Your task to perform on an android device: Set the phone to "Do not disturb". Image 0: 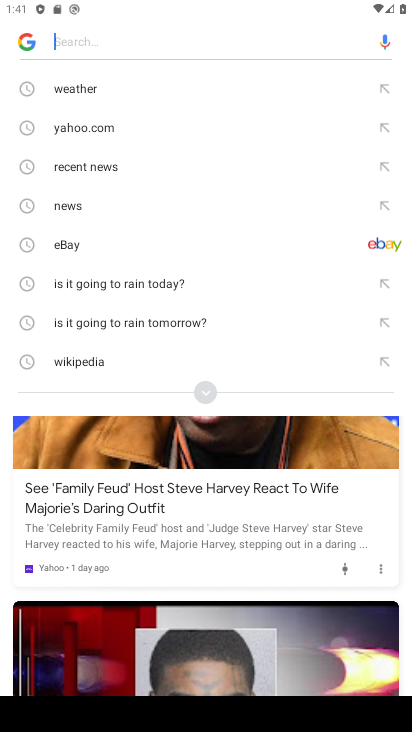
Step 0: press back button
Your task to perform on an android device: Set the phone to "Do not disturb". Image 1: 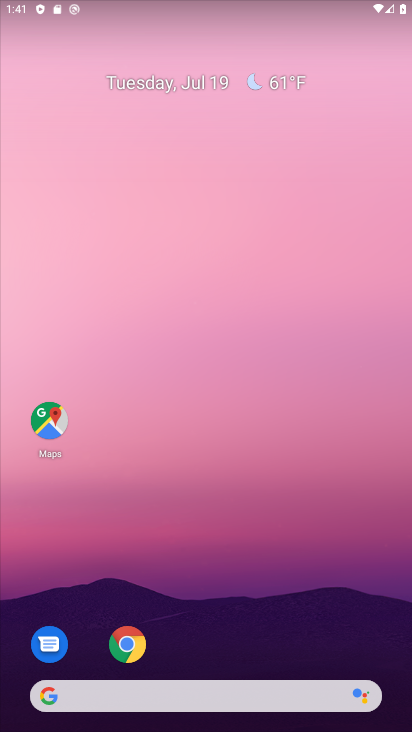
Step 1: drag from (196, 670) to (178, 178)
Your task to perform on an android device: Set the phone to "Do not disturb". Image 2: 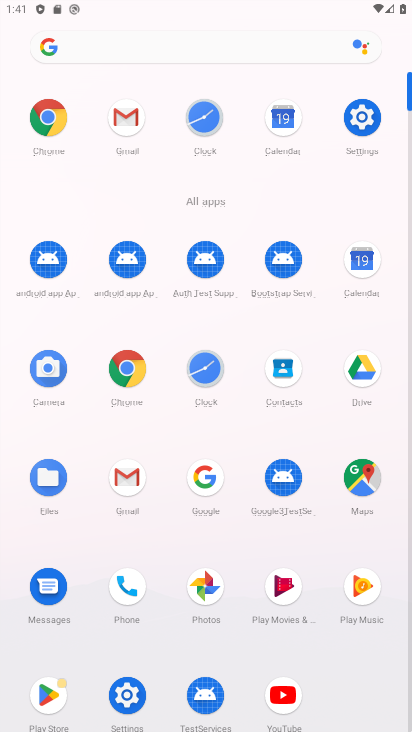
Step 2: click (403, 117)
Your task to perform on an android device: Set the phone to "Do not disturb". Image 3: 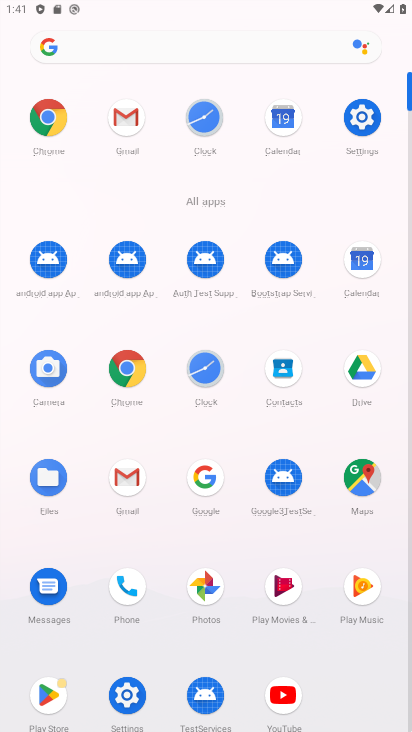
Step 3: drag from (343, 11) to (279, 592)
Your task to perform on an android device: Set the phone to "Do not disturb". Image 4: 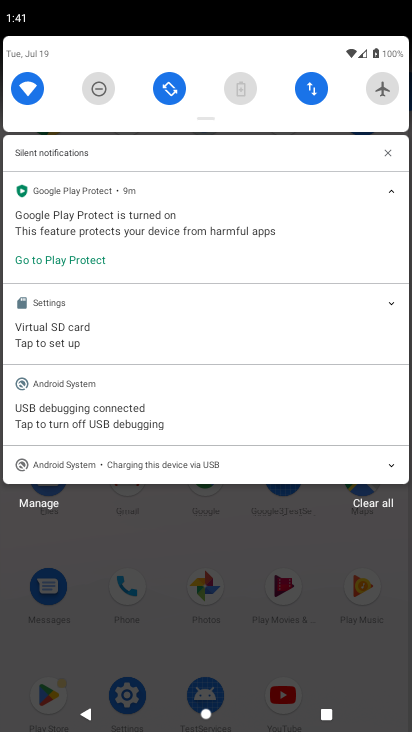
Step 4: click (104, 80)
Your task to perform on an android device: Set the phone to "Do not disturb". Image 5: 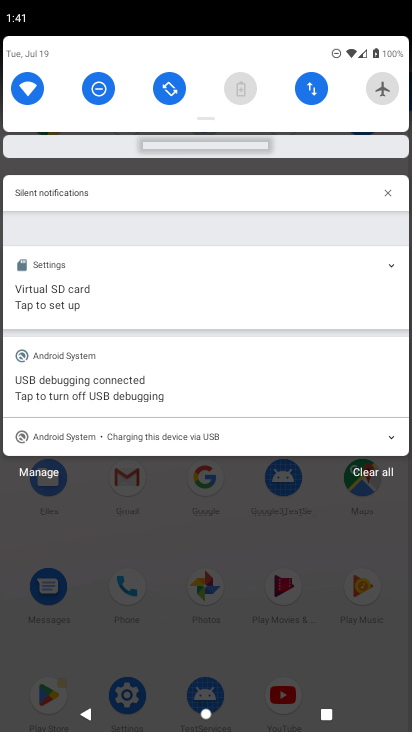
Step 5: task complete